Your task to perform on an android device: change timer sound Image 0: 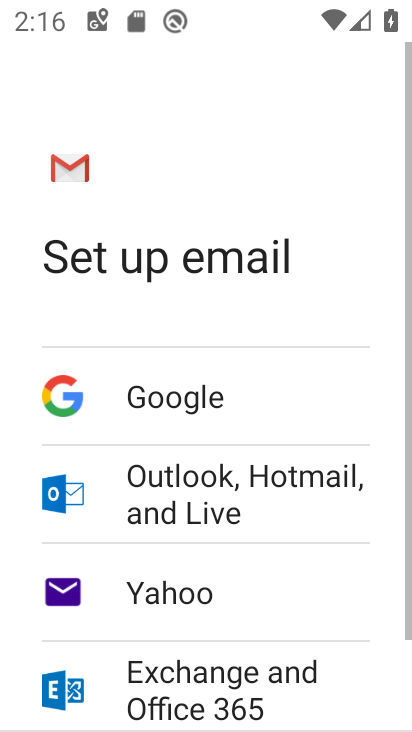
Step 0: press home button
Your task to perform on an android device: change timer sound Image 1: 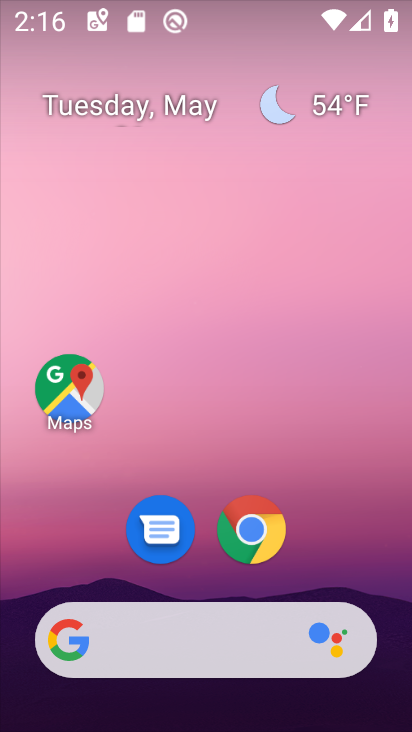
Step 1: drag from (322, 542) to (298, 266)
Your task to perform on an android device: change timer sound Image 2: 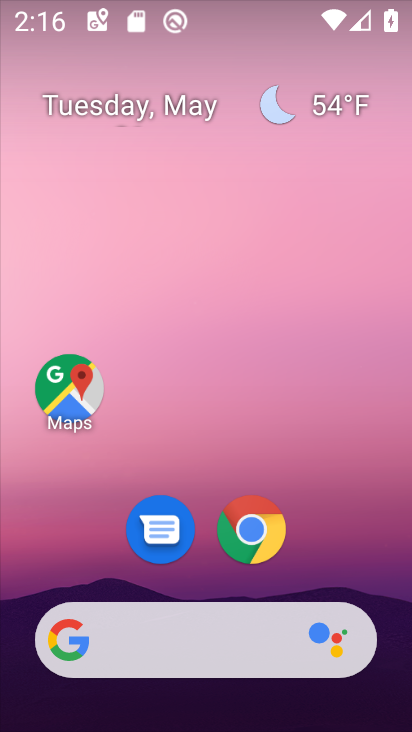
Step 2: drag from (313, 542) to (304, 220)
Your task to perform on an android device: change timer sound Image 3: 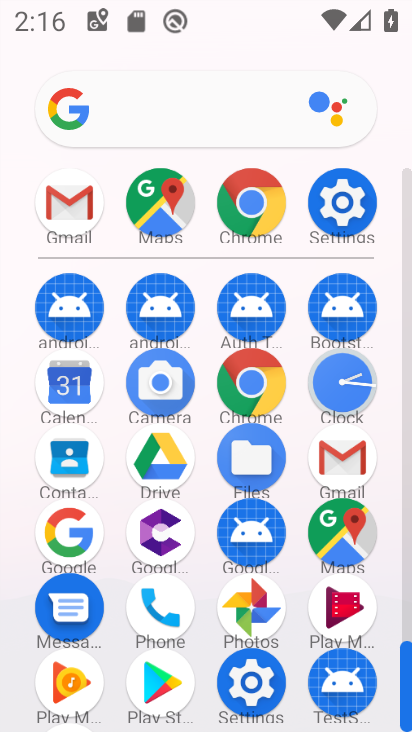
Step 3: click (336, 378)
Your task to perform on an android device: change timer sound Image 4: 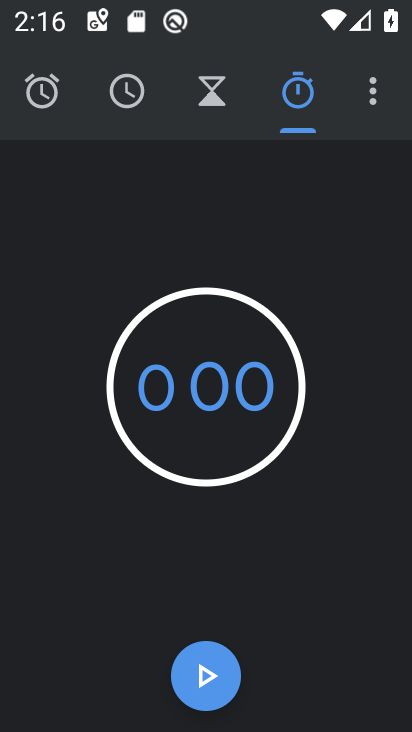
Step 4: click (368, 96)
Your task to perform on an android device: change timer sound Image 5: 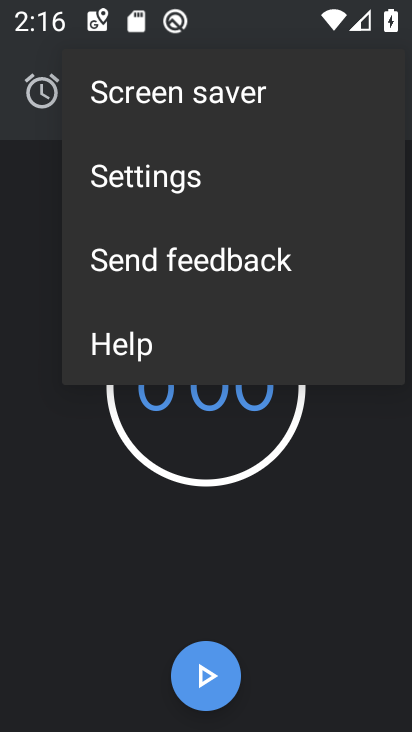
Step 5: click (217, 196)
Your task to perform on an android device: change timer sound Image 6: 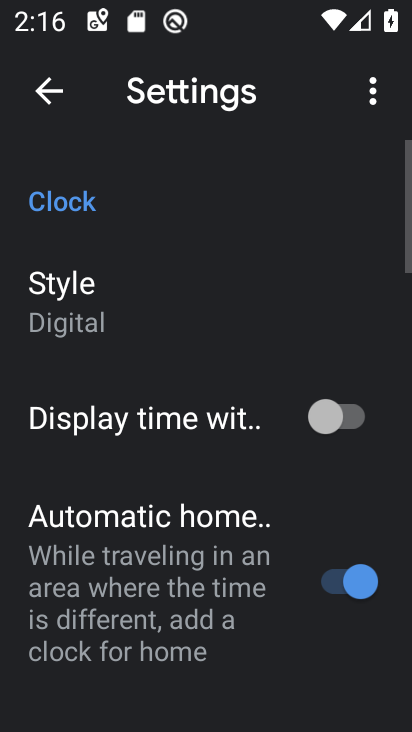
Step 6: drag from (219, 561) to (231, 244)
Your task to perform on an android device: change timer sound Image 7: 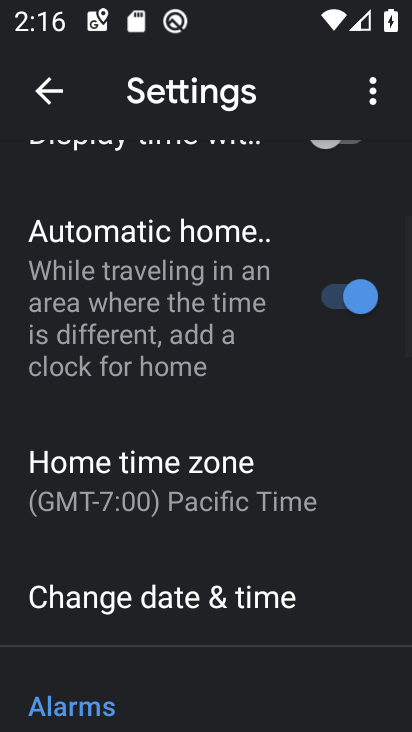
Step 7: drag from (136, 622) to (200, 338)
Your task to perform on an android device: change timer sound Image 8: 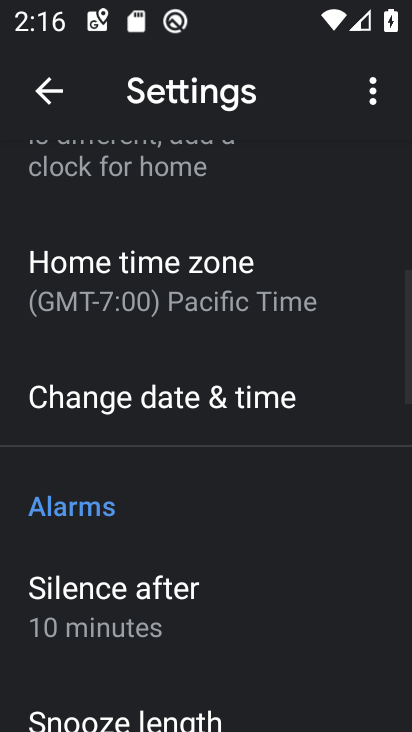
Step 8: drag from (182, 636) to (222, 328)
Your task to perform on an android device: change timer sound Image 9: 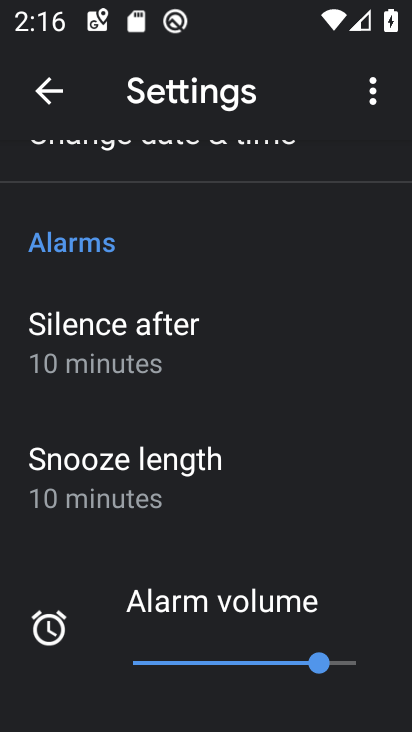
Step 9: drag from (138, 577) to (194, 308)
Your task to perform on an android device: change timer sound Image 10: 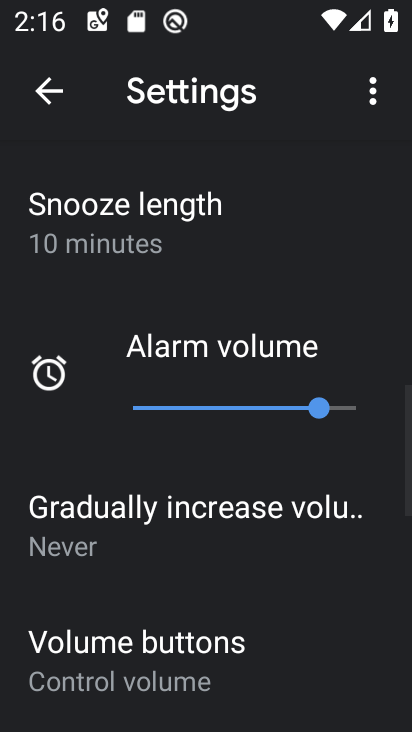
Step 10: drag from (142, 614) to (186, 281)
Your task to perform on an android device: change timer sound Image 11: 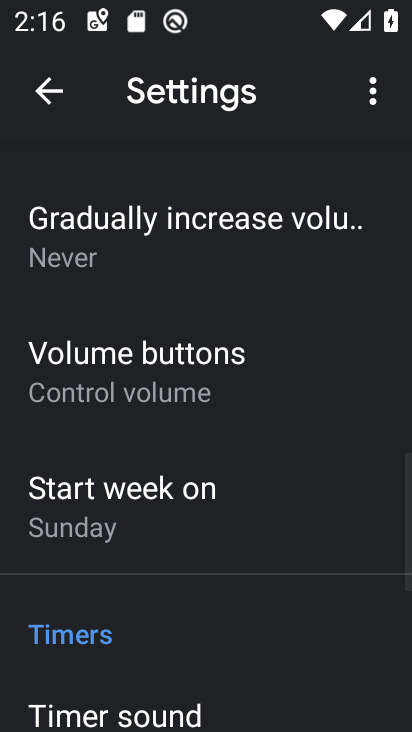
Step 11: drag from (114, 616) to (147, 417)
Your task to perform on an android device: change timer sound Image 12: 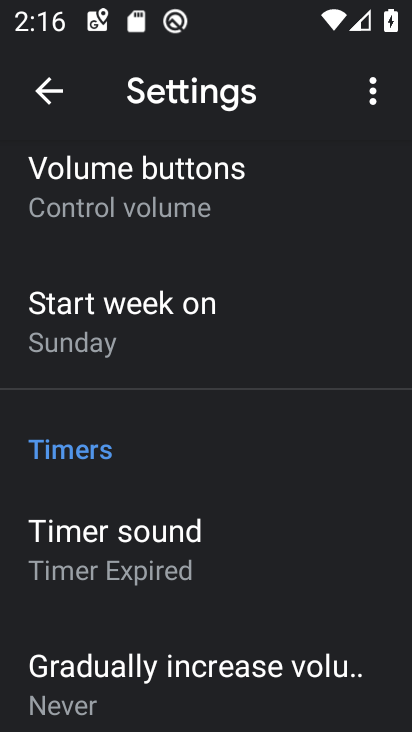
Step 12: click (116, 540)
Your task to perform on an android device: change timer sound Image 13: 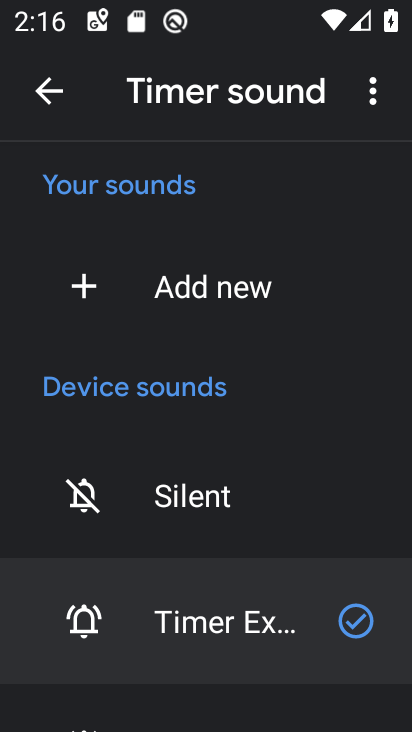
Step 13: task complete